Your task to perform on an android device: Open Google Chrome Image 0: 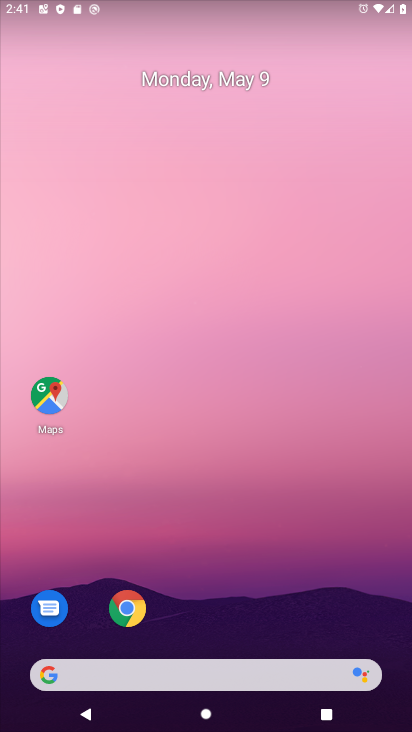
Step 0: click (133, 596)
Your task to perform on an android device: Open Google Chrome Image 1: 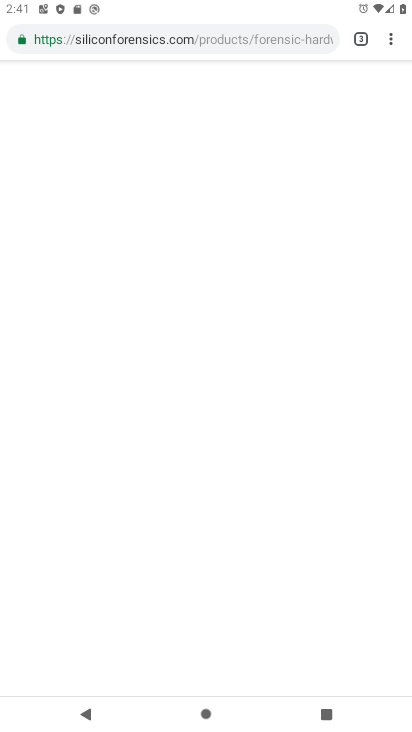
Step 1: task complete